Your task to perform on an android device: Go to Amazon Image 0: 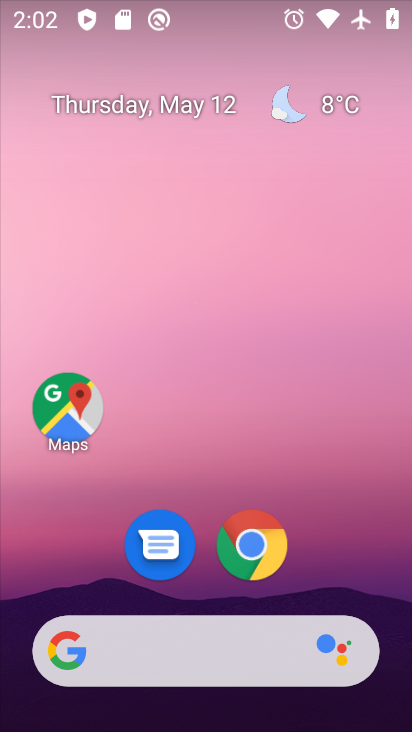
Step 0: click (253, 538)
Your task to perform on an android device: Go to Amazon Image 1: 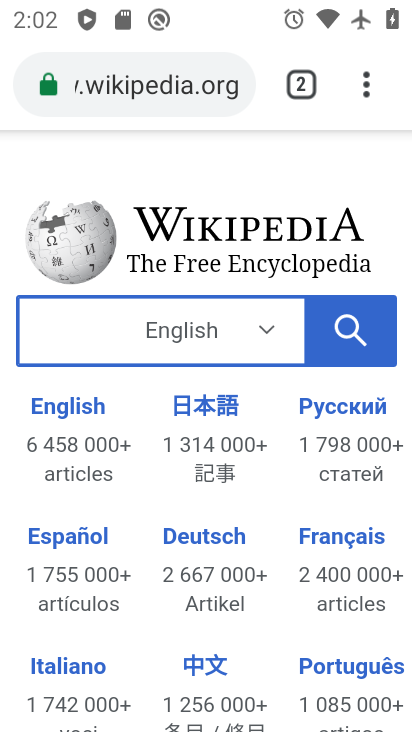
Step 1: click (176, 84)
Your task to perform on an android device: Go to Amazon Image 2: 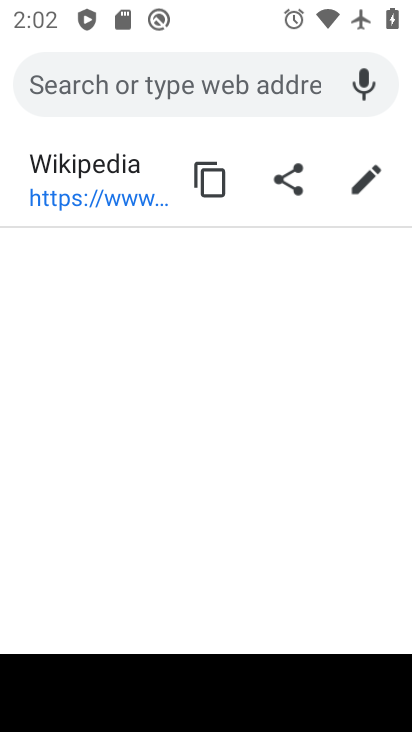
Step 2: type "amazon"
Your task to perform on an android device: Go to Amazon Image 3: 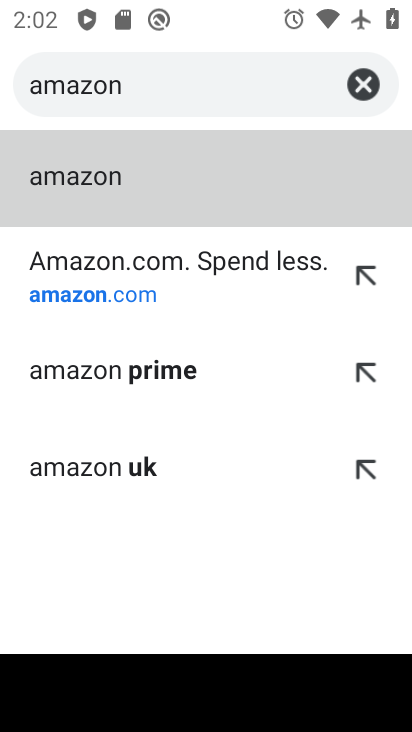
Step 3: click (93, 183)
Your task to perform on an android device: Go to Amazon Image 4: 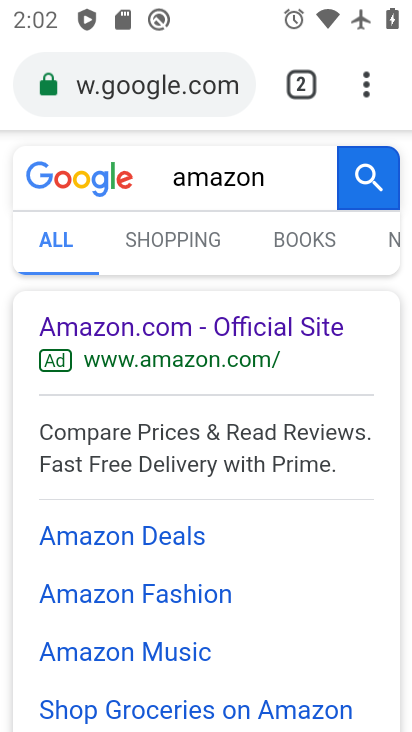
Step 4: click (117, 326)
Your task to perform on an android device: Go to Amazon Image 5: 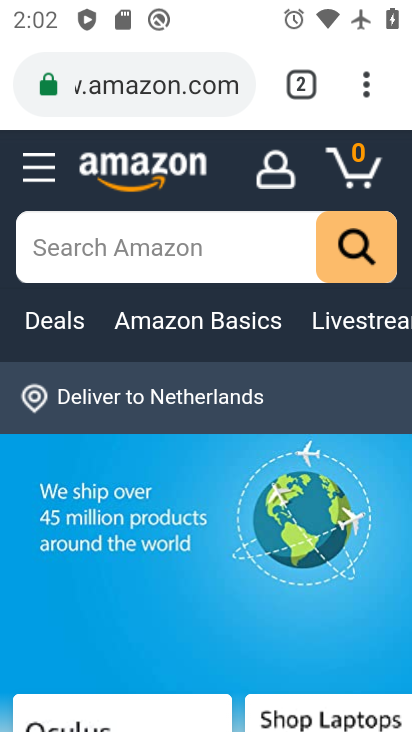
Step 5: task complete